Your task to perform on an android device: turn on sleep mode Image 0: 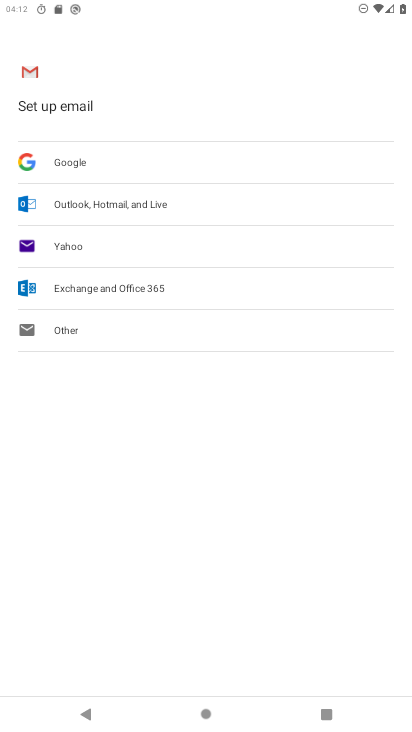
Step 0: press home button
Your task to perform on an android device: turn on sleep mode Image 1: 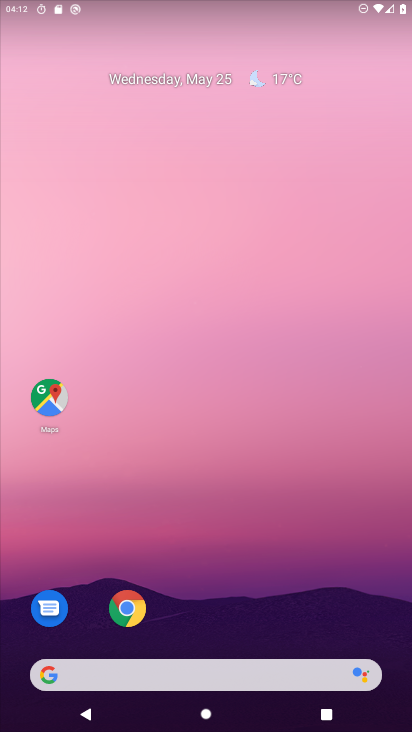
Step 1: drag from (187, 524) to (175, 196)
Your task to perform on an android device: turn on sleep mode Image 2: 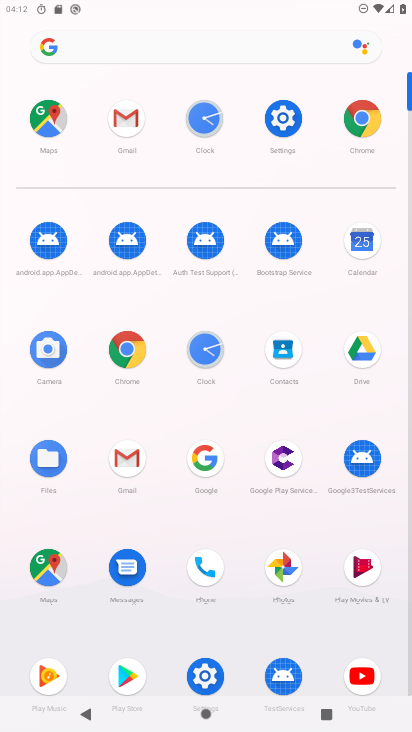
Step 2: click (301, 109)
Your task to perform on an android device: turn on sleep mode Image 3: 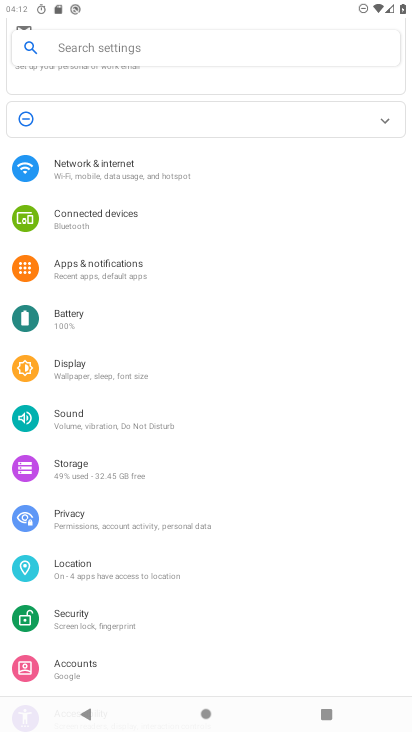
Step 3: click (77, 365)
Your task to perform on an android device: turn on sleep mode Image 4: 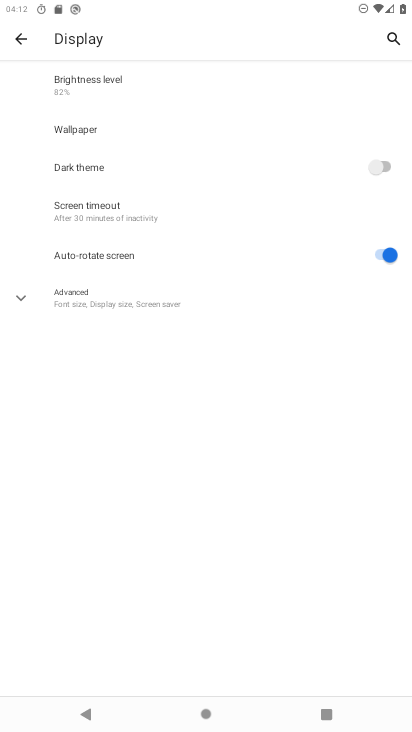
Step 4: drag from (112, 94) to (159, 270)
Your task to perform on an android device: turn on sleep mode Image 5: 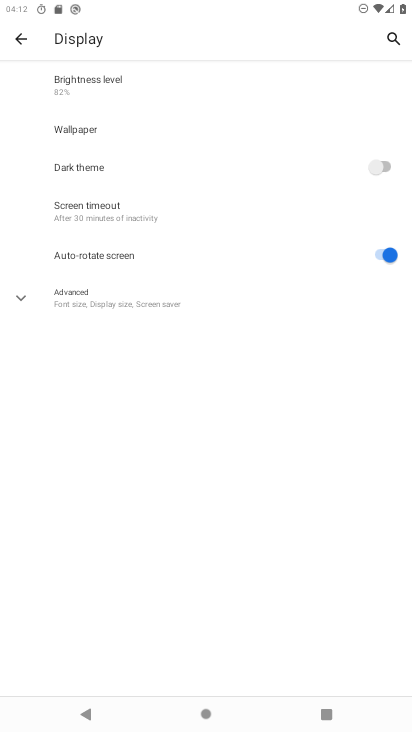
Step 5: click (111, 209)
Your task to perform on an android device: turn on sleep mode Image 6: 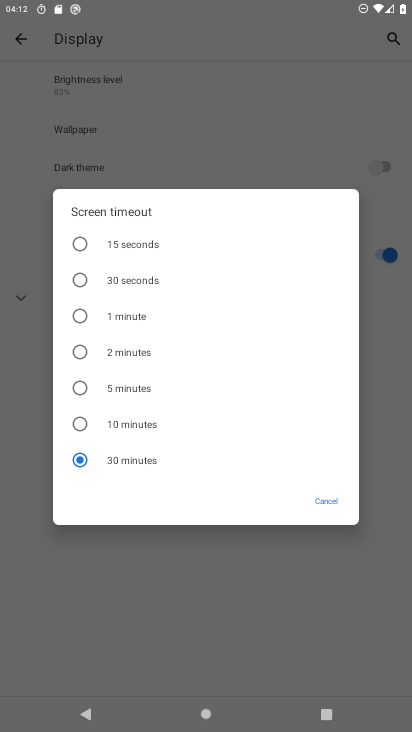
Step 6: task complete